Your task to perform on an android device: change the clock display to digital Image 0: 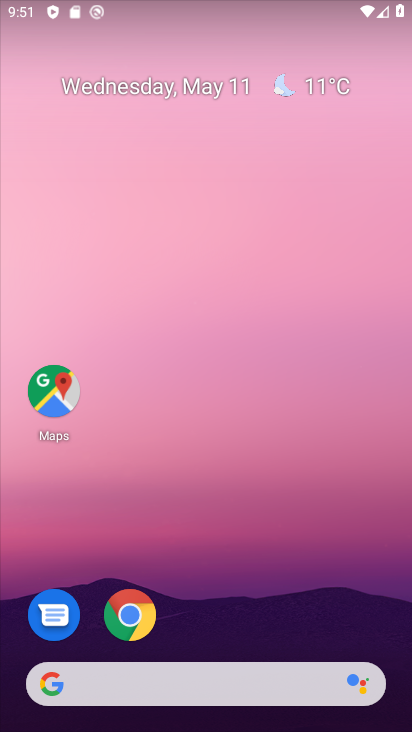
Step 0: drag from (203, 347) to (169, 0)
Your task to perform on an android device: change the clock display to digital Image 1: 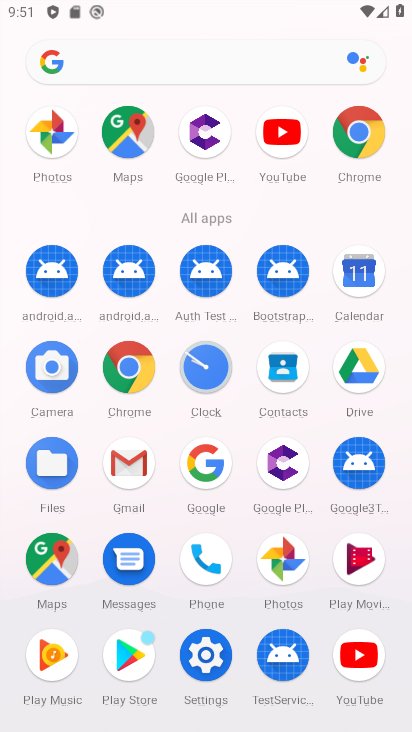
Step 1: click (213, 364)
Your task to perform on an android device: change the clock display to digital Image 2: 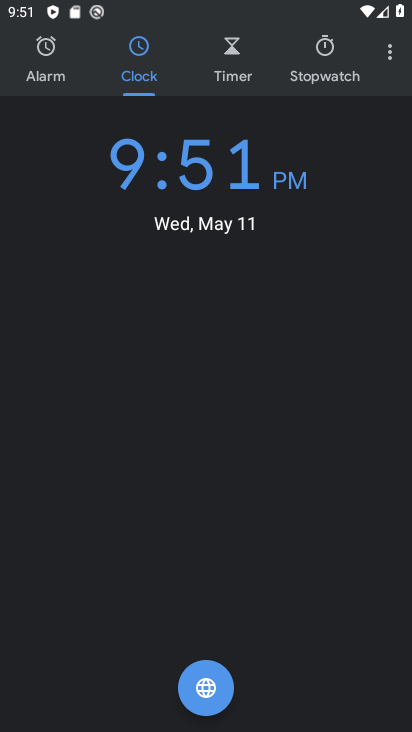
Step 2: click (389, 57)
Your task to perform on an android device: change the clock display to digital Image 3: 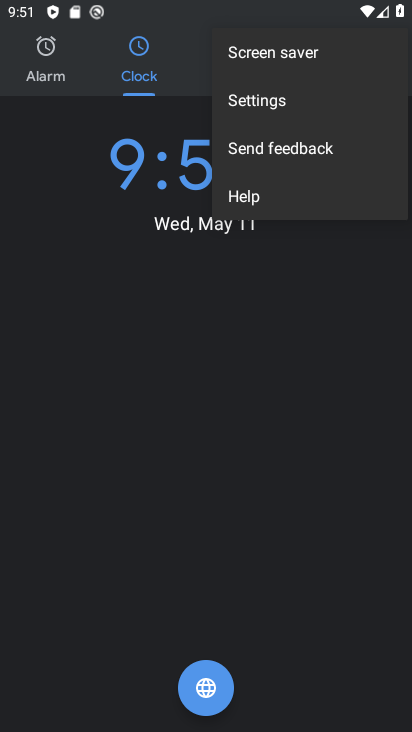
Step 3: click (250, 109)
Your task to perform on an android device: change the clock display to digital Image 4: 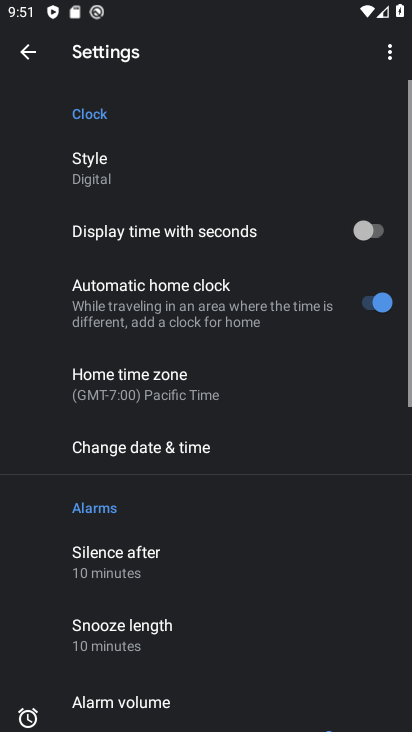
Step 4: click (116, 165)
Your task to perform on an android device: change the clock display to digital Image 5: 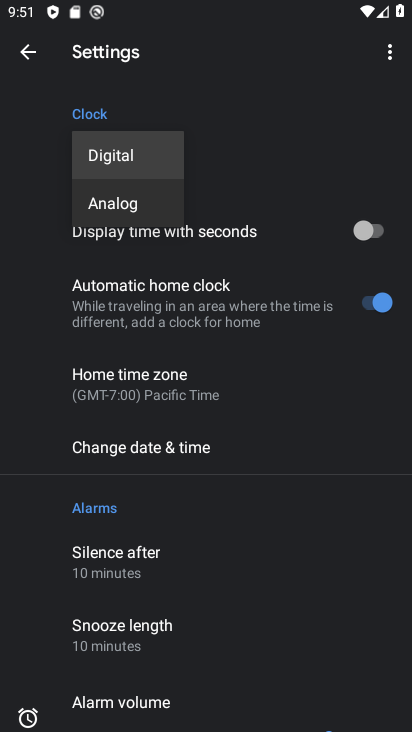
Step 5: task complete